Your task to perform on an android device: Open Chrome and go to the settings page Image 0: 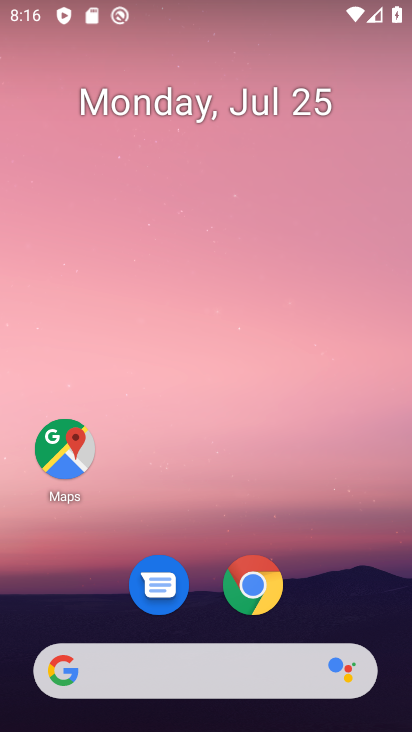
Step 0: press home button
Your task to perform on an android device: Open Chrome and go to the settings page Image 1: 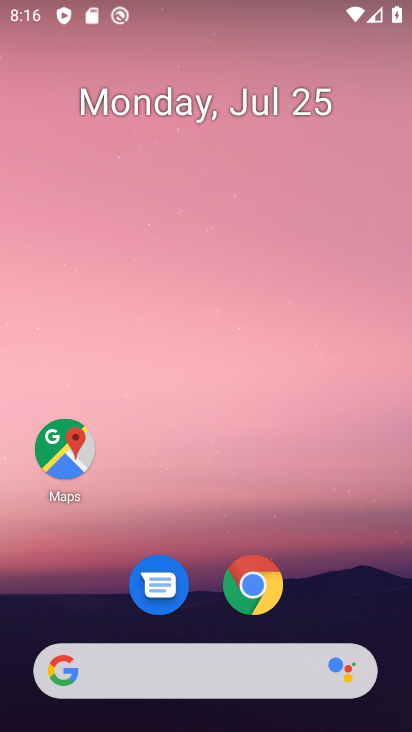
Step 1: click (245, 591)
Your task to perform on an android device: Open Chrome and go to the settings page Image 2: 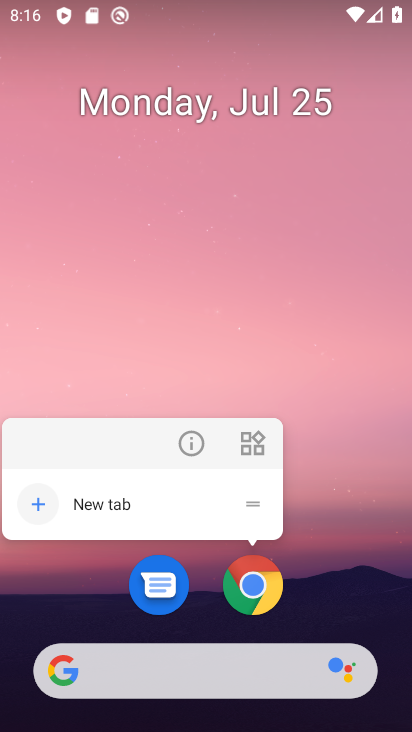
Step 2: click (254, 592)
Your task to perform on an android device: Open Chrome and go to the settings page Image 3: 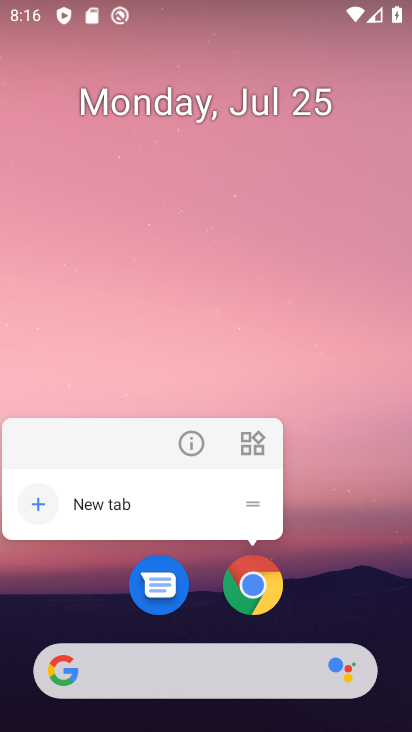
Step 3: click (254, 592)
Your task to perform on an android device: Open Chrome and go to the settings page Image 4: 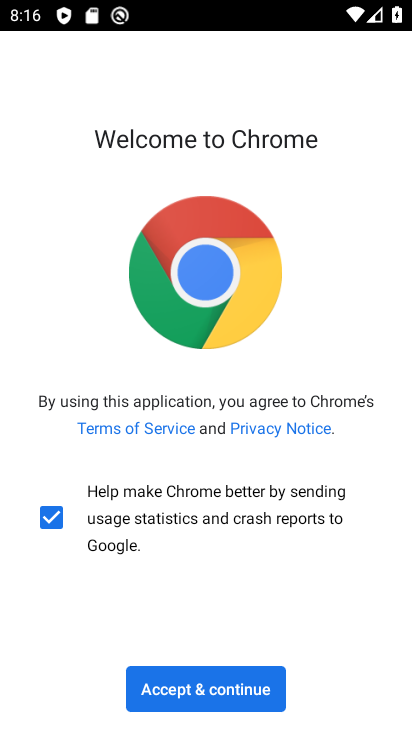
Step 4: click (199, 687)
Your task to perform on an android device: Open Chrome and go to the settings page Image 5: 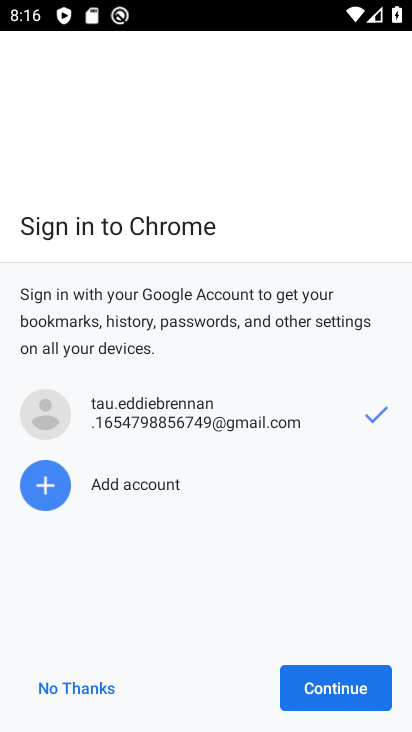
Step 5: click (330, 676)
Your task to perform on an android device: Open Chrome and go to the settings page Image 6: 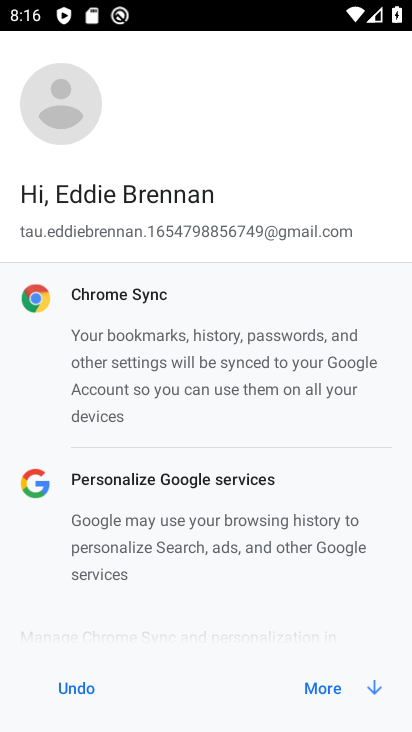
Step 6: click (321, 685)
Your task to perform on an android device: Open Chrome and go to the settings page Image 7: 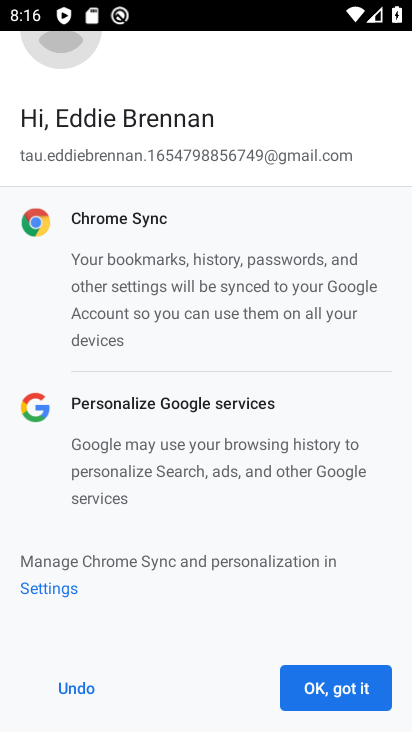
Step 7: click (334, 690)
Your task to perform on an android device: Open Chrome and go to the settings page Image 8: 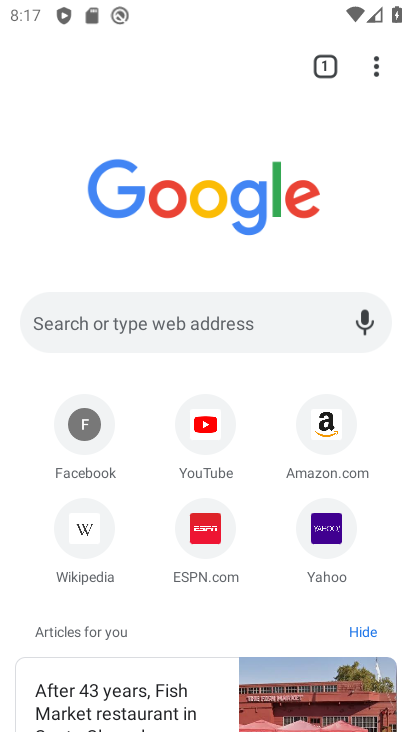
Step 8: task complete